Your task to perform on an android device: turn off priority inbox in the gmail app Image 0: 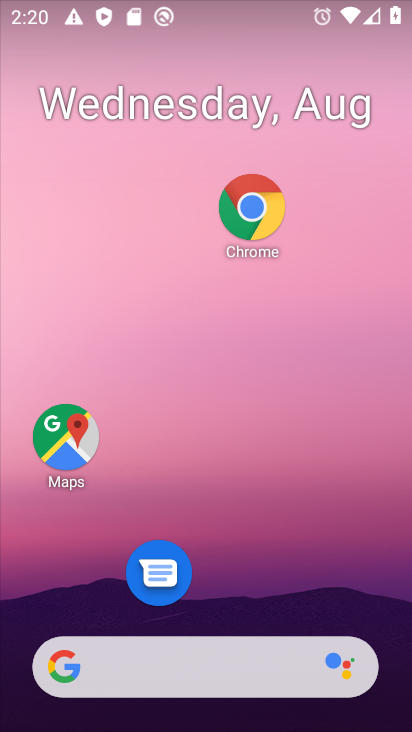
Step 0: drag from (250, 635) to (284, 156)
Your task to perform on an android device: turn off priority inbox in the gmail app Image 1: 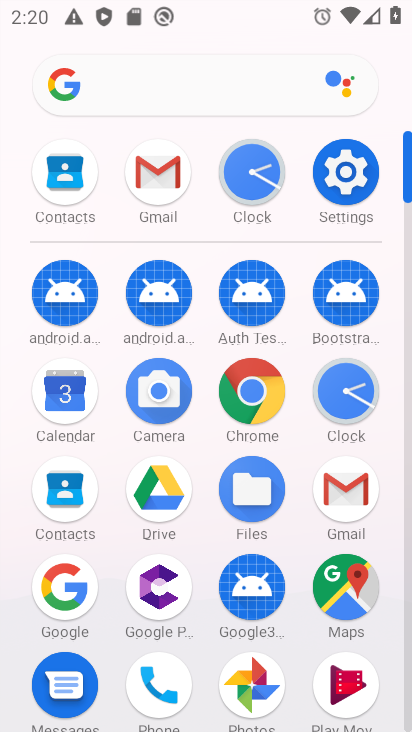
Step 1: click (340, 500)
Your task to perform on an android device: turn off priority inbox in the gmail app Image 2: 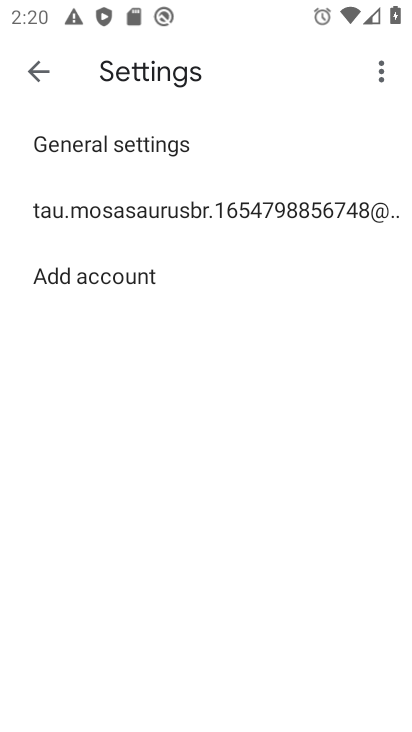
Step 2: click (181, 217)
Your task to perform on an android device: turn off priority inbox in the gmail app Image 3: 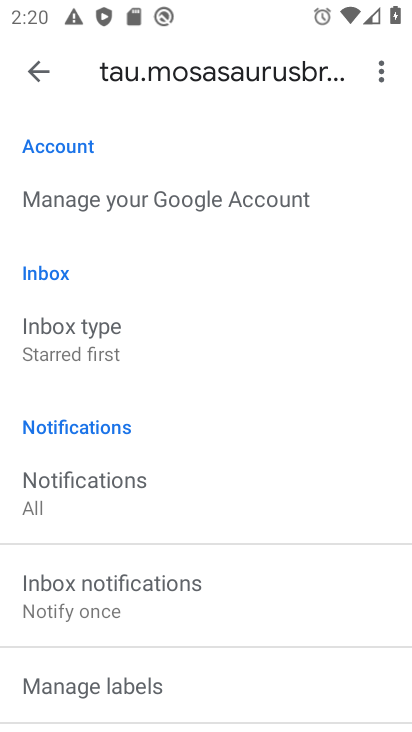
Step 3: click (118, 349)
Your task to perform on an android device: turn off priority inbox in the gmail app Image 4: 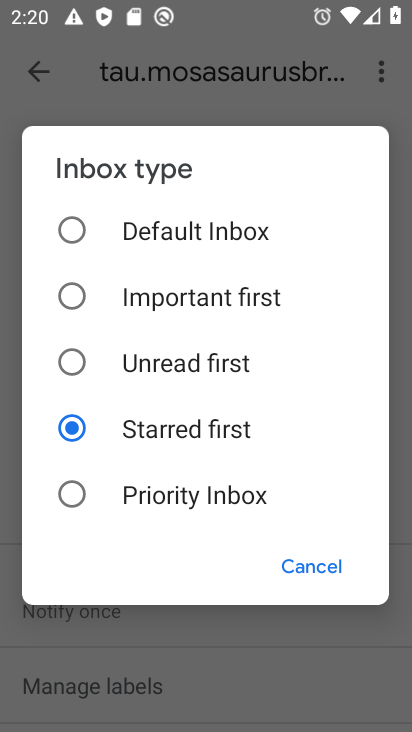
Step 4: task complete